Your task to perform on an android device: Go to Yahoo.com Image 0: 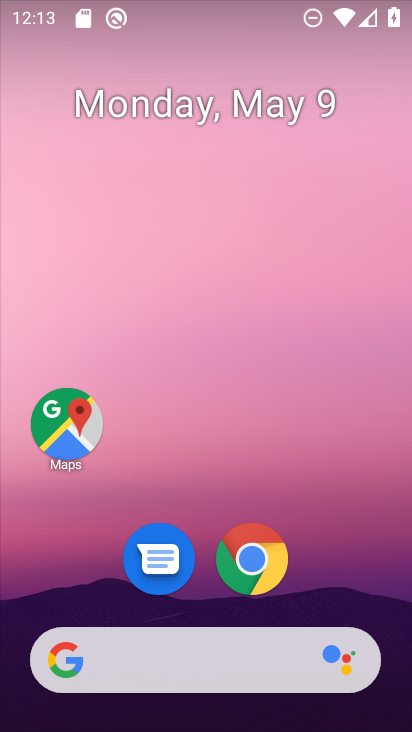
Step 0: drag from (344, 552) to (328, 10)
Your task to perform on an android device: Go to Yahoo.com Image 1: 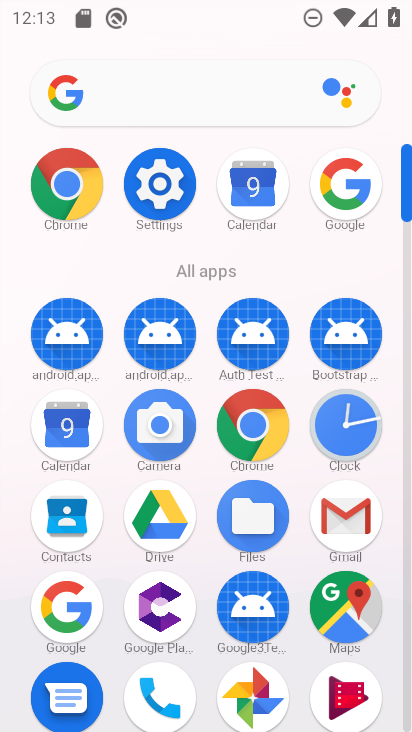
Step 1: click (60, 178)
Your task to perform on an android device: Go to Yahoo.com Image 2: 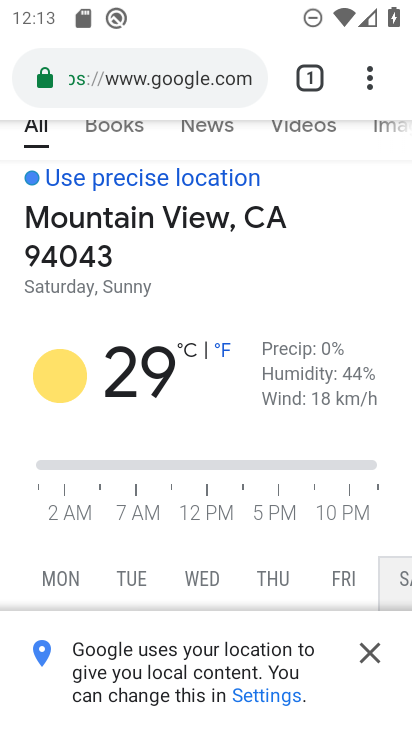
Step 2: click (220, 71)
Your task to perform on an android device: Go to Yahoo.com Image 3: 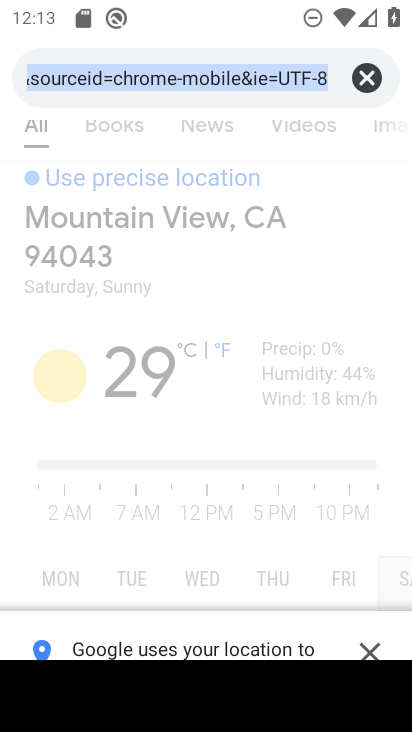
Step 3: click (357, 78)
Your task to perform on an android device: Go to Yahoo.com Image 4: 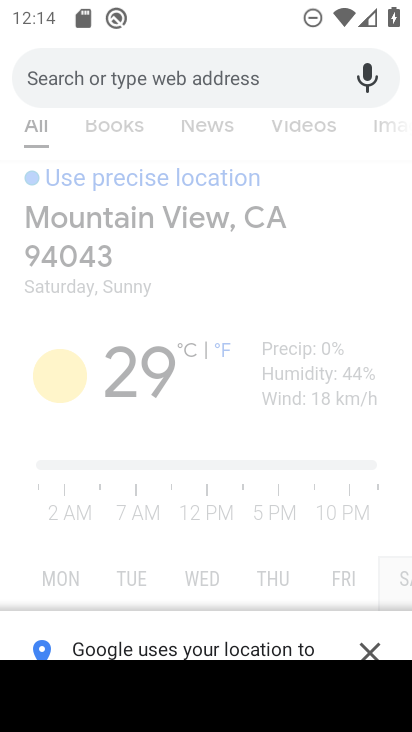
Step 4: type " Yahoo.com"
Your task to perform on an android device: Go to Yahoo.com Image 5: 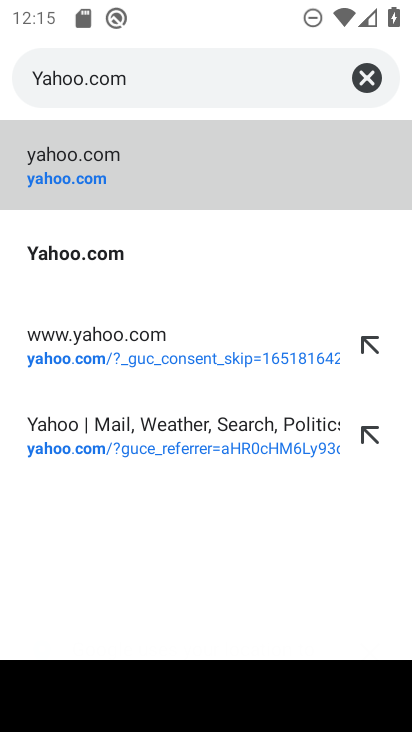
Step 5: click (156, 165)
Your task to perform on an android device: Go to Yahoo.com Image 6: 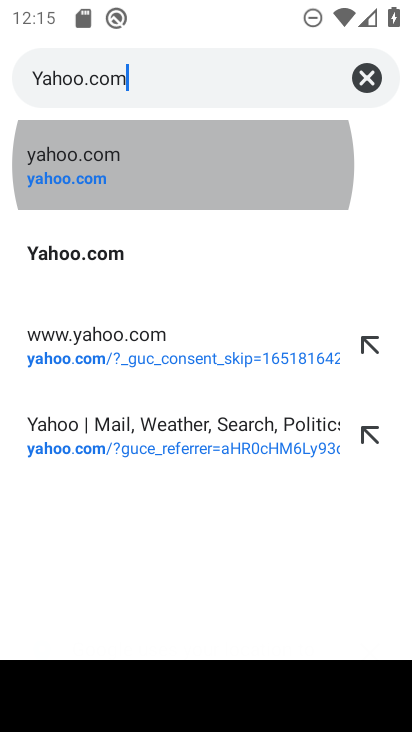
Step 6: click (156, 165)
Your task to perform on an android device: Go to Yahoo.com Image 7: 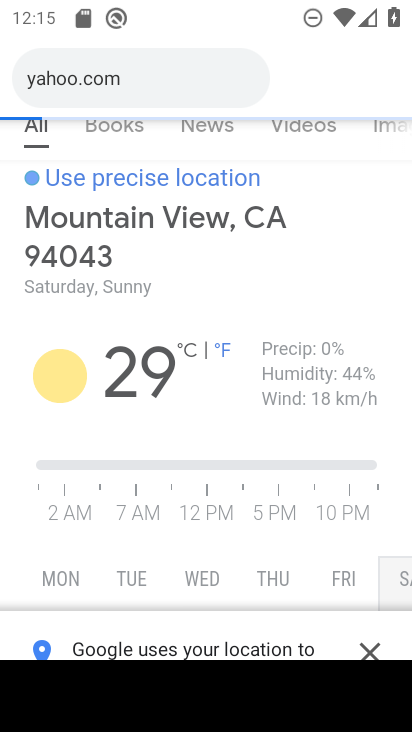
Step 7: click (156, 165)
Your task to perform on an android device: Go to Yahoo.com Image 8: 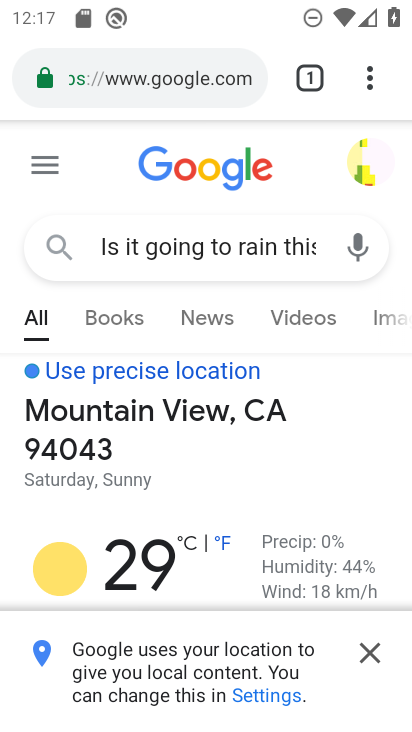
Step 8: click (155, 75)
Your task to perform on an android device: Go to Yahoo.com Image 9: 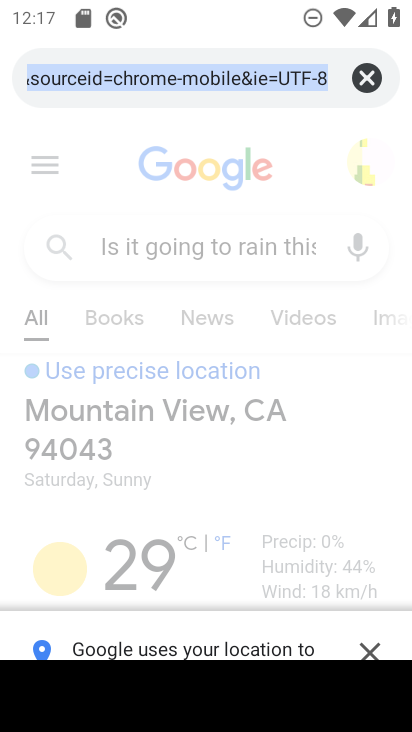
Step 9: click (366, 66)
Your task to perform on an android device: Go to Yahoo.com Image 10: 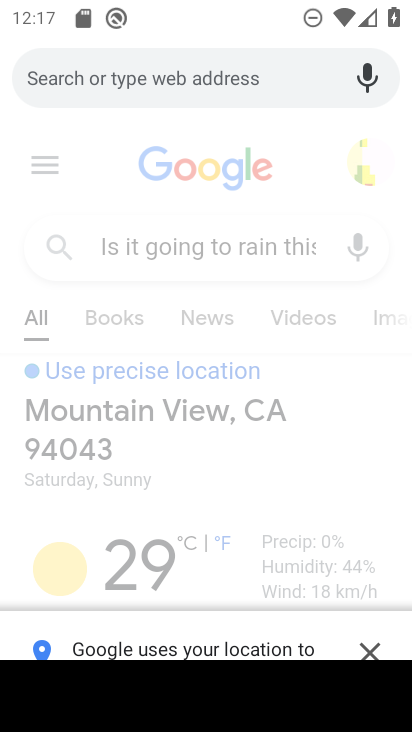
Step 10: type " Yahoo.comv"
Your task to perform on an android device: Go to Yahoo.com Image 11: 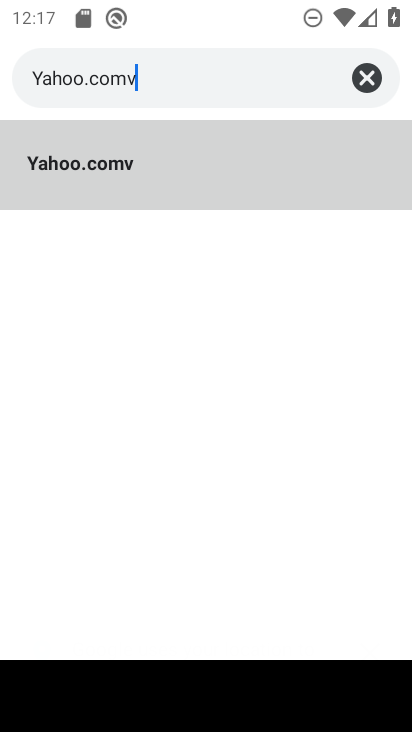
Step 11: click (91, 170)
Your task to perform on an android device: Go to Yahoo.com Image 12: 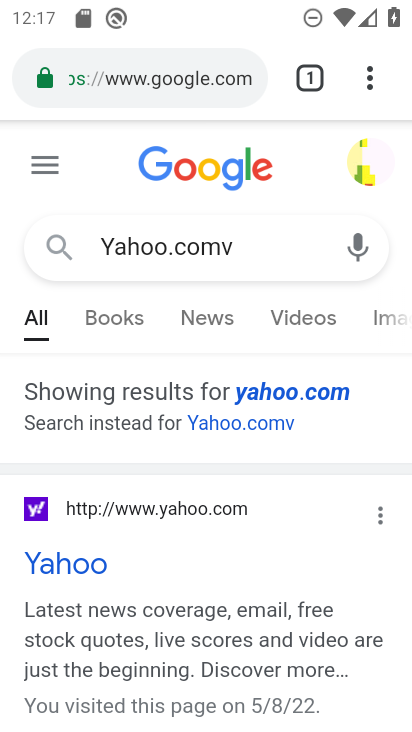
Step 12: click (47, 579)
Your task to perform on an android device: Go to Yahoo.com Image 13: 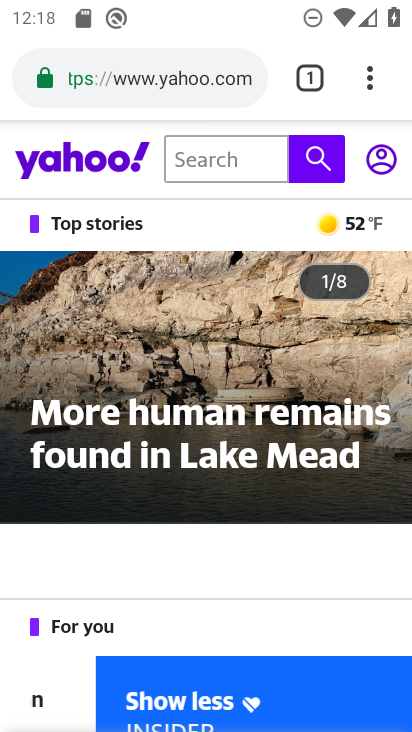
Step 13: task complete